Your task to perform on an android device: find photos in the google photos app Image 0: 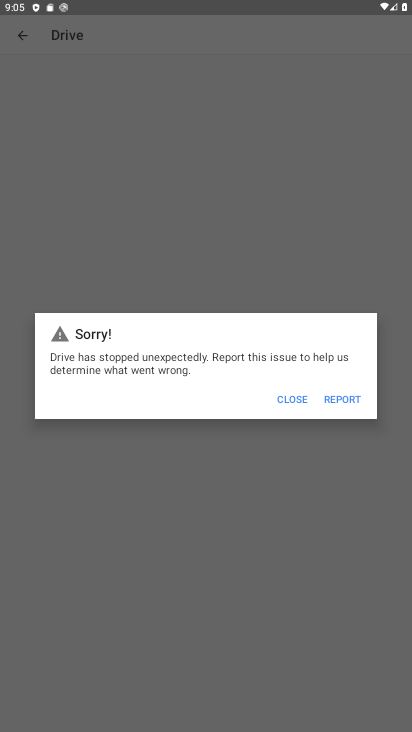
Step 0: press home button
Your task to perform on an android device: find photos in the google photos app Image 1: 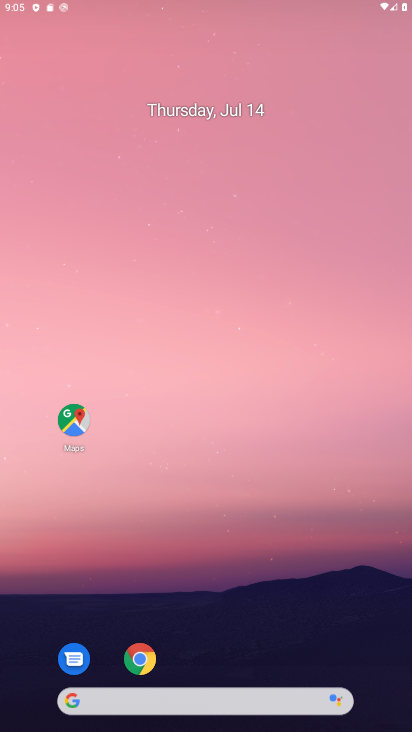
Step 1: drag from (274, 683) to (235, 112)
Your task to perform on an android device: find photos in the google photos app Image 2: 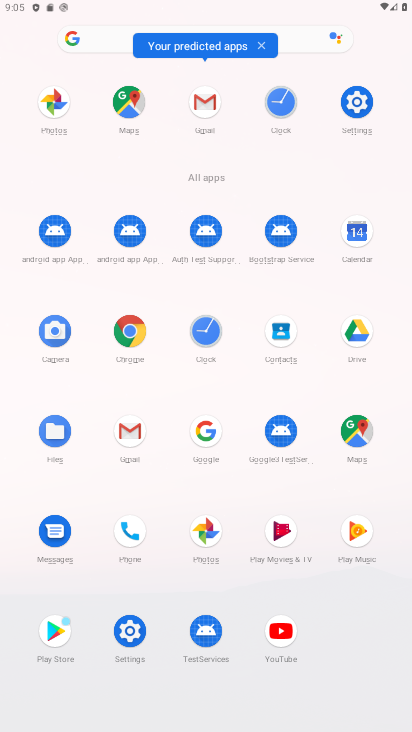
Step 2: click (201, 523)
Your task to perform on an android device: find photos in the google photos app Image 3: 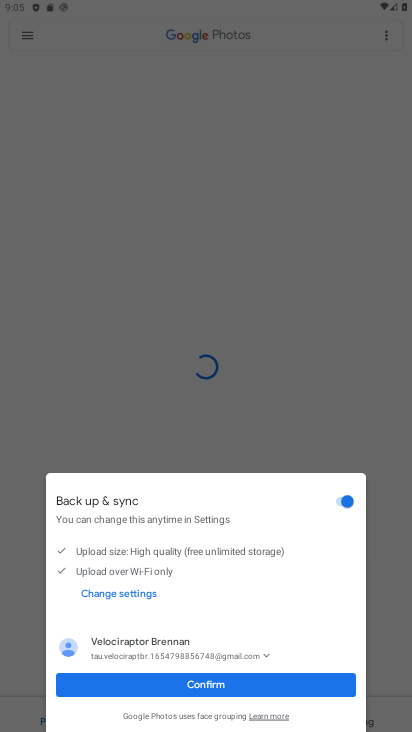
Step 3: click (217, 687)
Your task to perform on an android device: find photos in the google photos app Image 4: 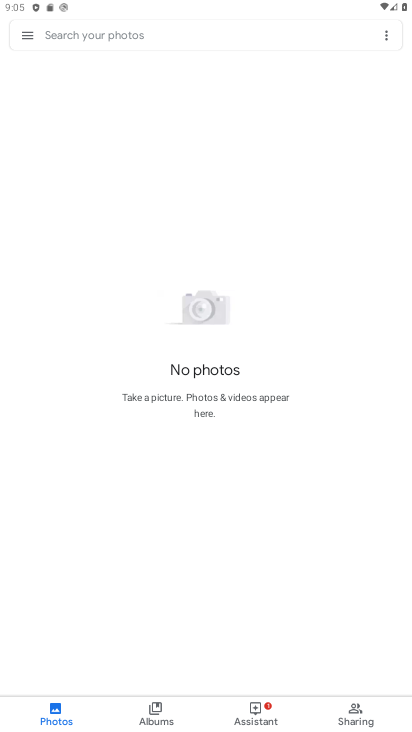
Step 4: task complete